Your task to perform on an android device: change text size in settings app Image 0: 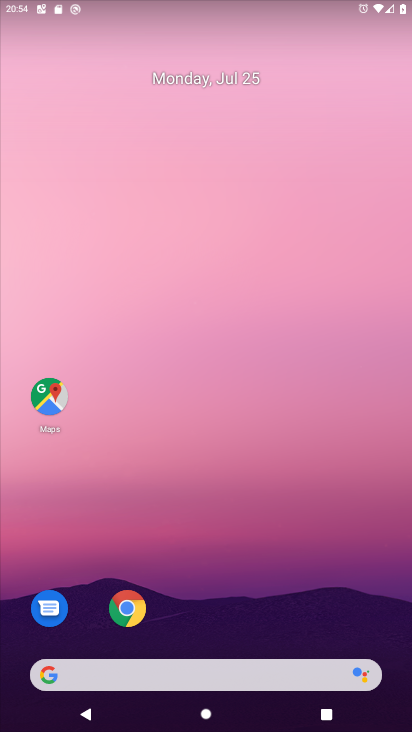
Step 0: drag from (229, 562) to (227, 0)
Your task to perform on an android device: change text size in settings app Image 1: 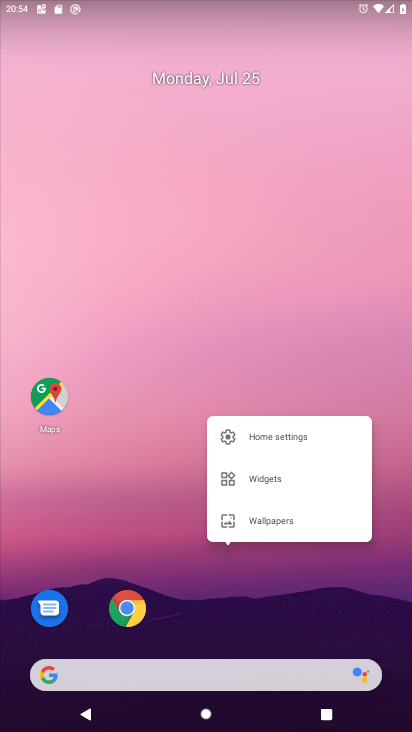
Step 1: click (241, 340)
Your task to perform on an android device: change text size in settings app Image 2: 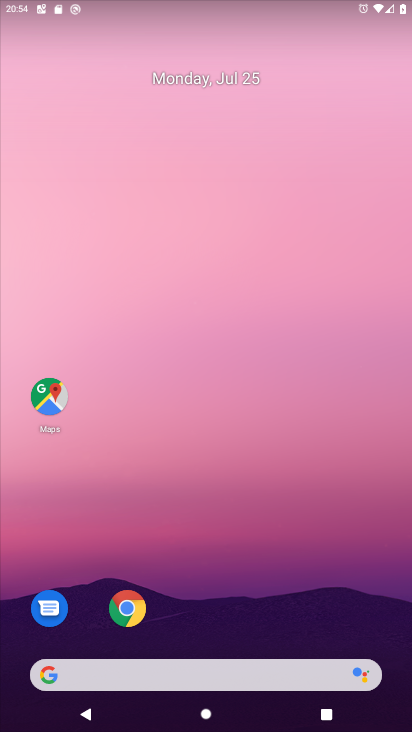
Step 2: drag from (241, 574) to (214, 56)
Your task to perform on an android device: change text size in settings app Image 3: 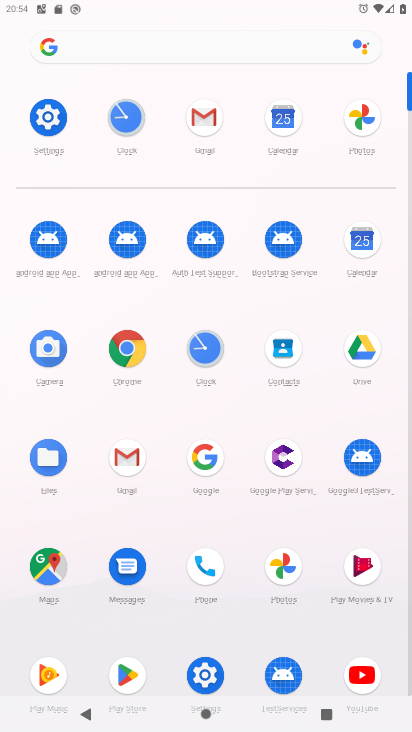
Step 3: click (38, 131)
Your task to perform on an android device: change text size in settings app Image 4: 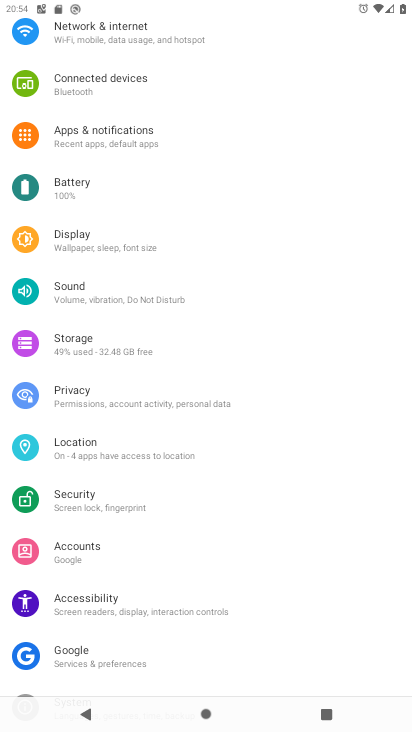
Step 4: click (111, 245)
Your task to perform on an android device: change text size in settings app Image 5: 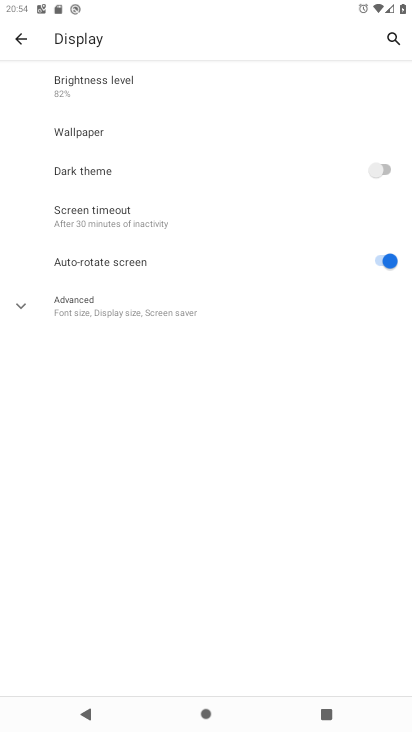
Step 5: click (186, 322)
Your task to perform on an android device: change text size in settings app Image 6: 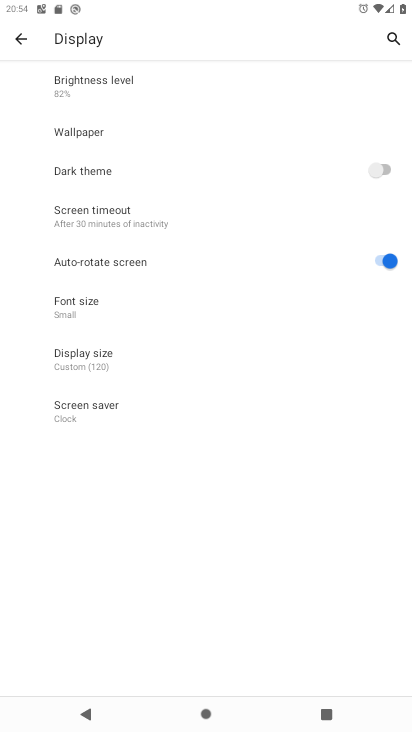
Step 6: click (122, 309)
Your task to perform on an android device: change text size in settings app Image 7: 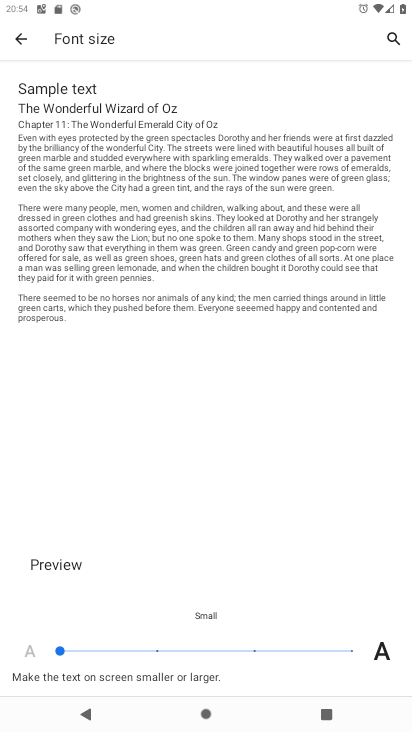
Step 7: click (250, 653)
Your task to perform on an android device: change text size in settings app Image 8: 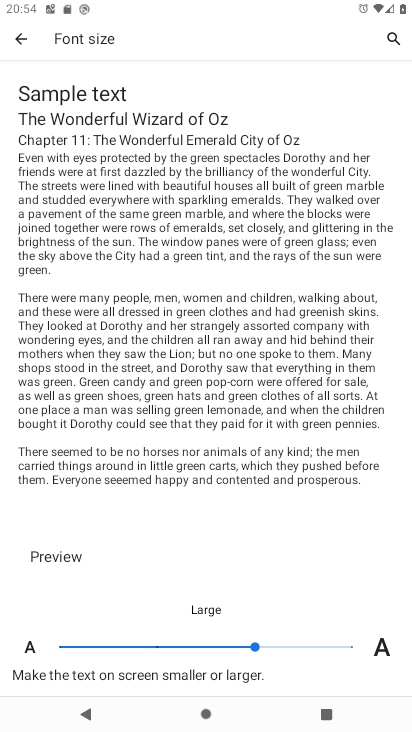
Step 8: task complete